Your task to perform on an android device: Open privacy settings Image 0: 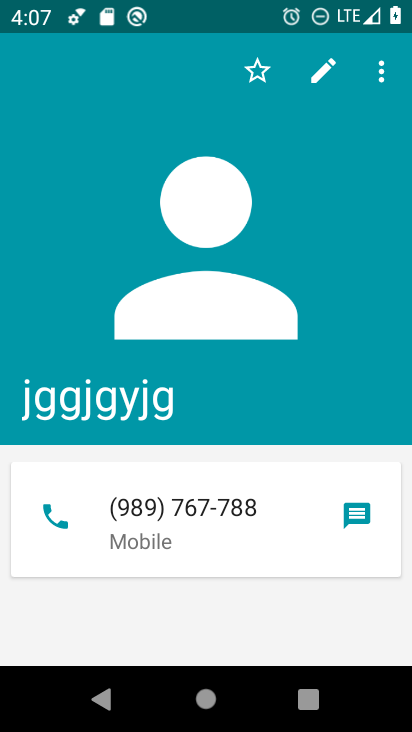
Step 0: press home button
Your task to perform on an android device: Open privacy settings Image 1: 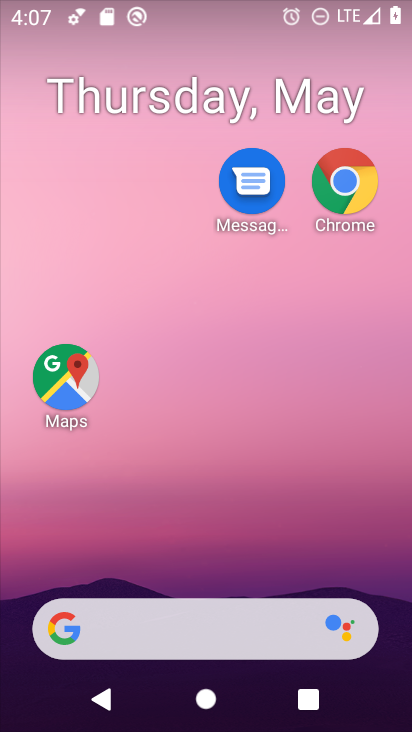
Step 1: drag from (235, 615) to (313, 20)
Your task to perform on an android device: Open privacy settings Image 2: 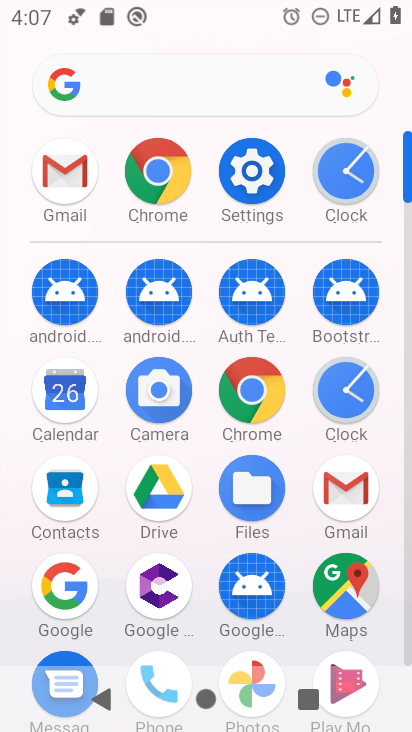
Step 2: click (258, 160)
Your task to perform on an android device: Open privacy settings Image 3: 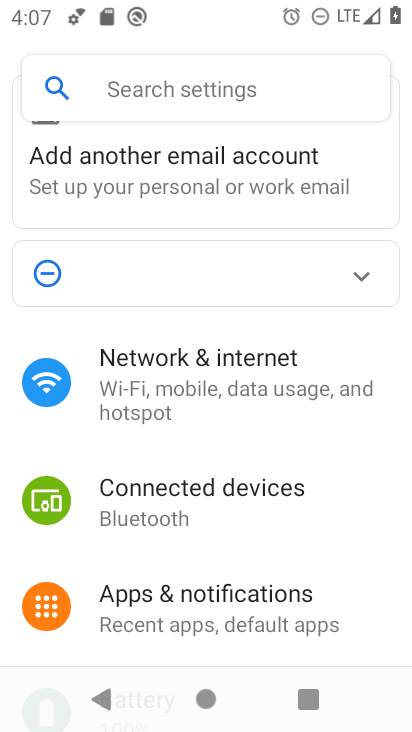
Step 3: drag from (207, 615) to (231, 108)
Your task to perform on an android device: Open privacy settings Image 4: 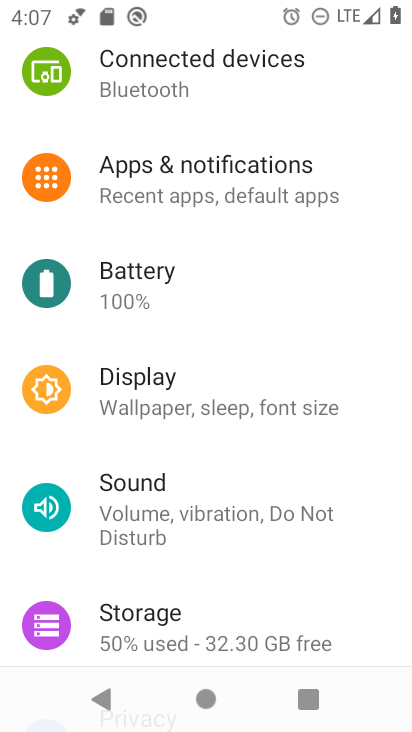
Step 4: drag from (183, 564) to (252, 169)
Your task to perform on an android device: Open privacy settings Image 5: 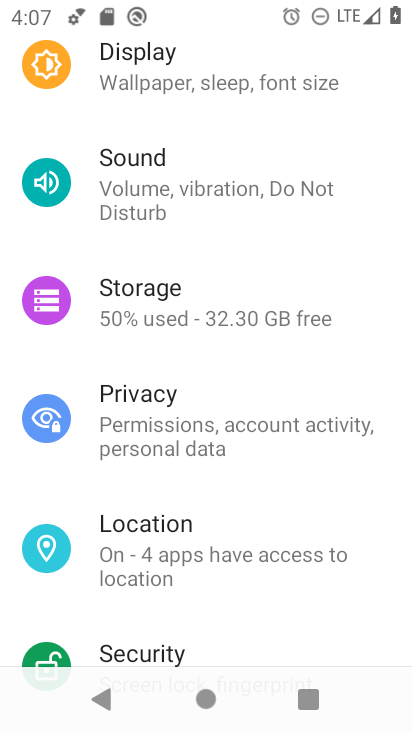
Step 5: click (220, 440)
Your task to perform on an android device: Open privacy settings Image 6: 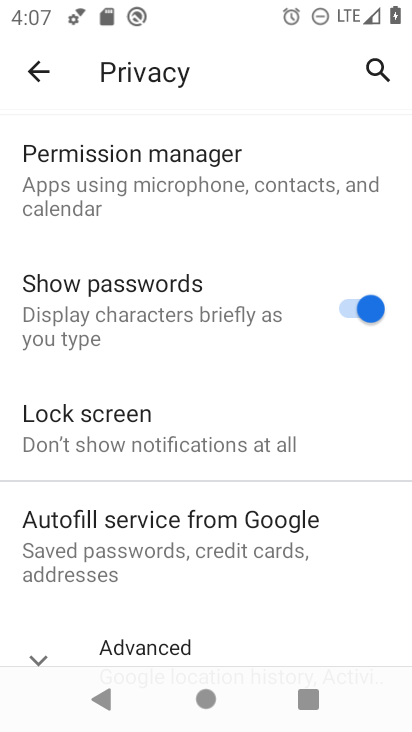
Step 6: task complete